Your task to perform on an android device: turn on bluetooth scan Image 0: 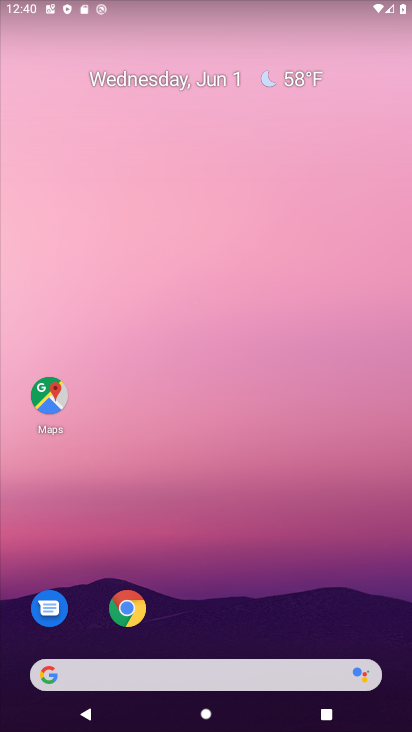
Step 0: drag from (215, 634) to (215, 41)
Your task to perform on an android device: turn on bluetooth scan Image 1: 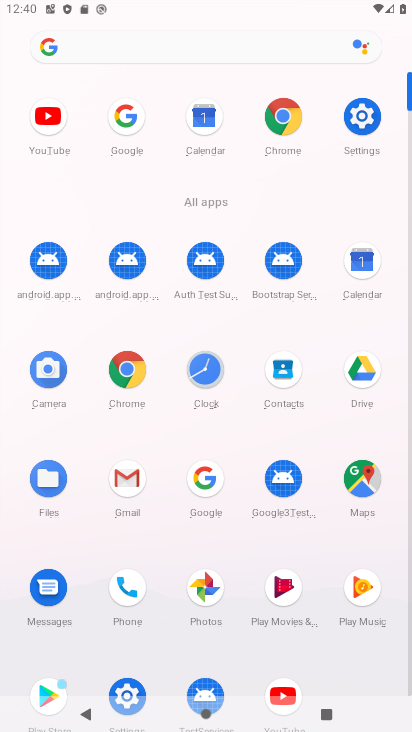
Step 1: click (367, 123)
Your task to perform on an android device: turn on bluetooth scan Image 2: 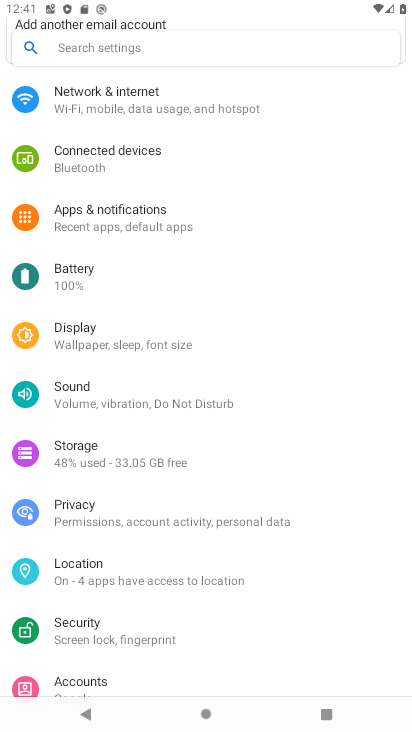
Step 2: drag from (87, 620) to (110, 376)
Your task to perform on an android device: turn on bluetooth scan Image 3: 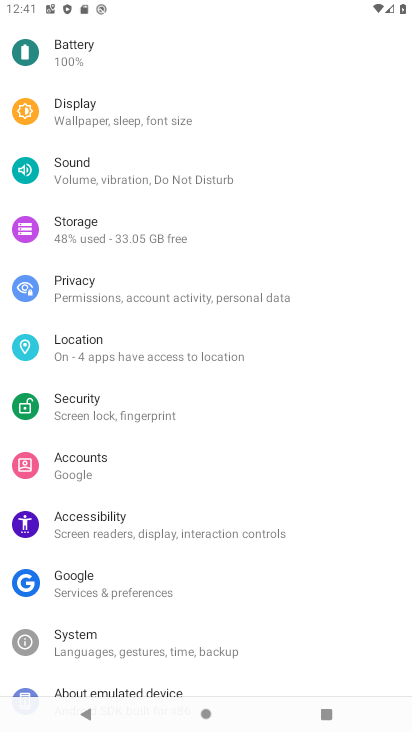
Step 3: click (107, 338)
Your task to perform on an android device: turn on bluetooth scan Image 4: 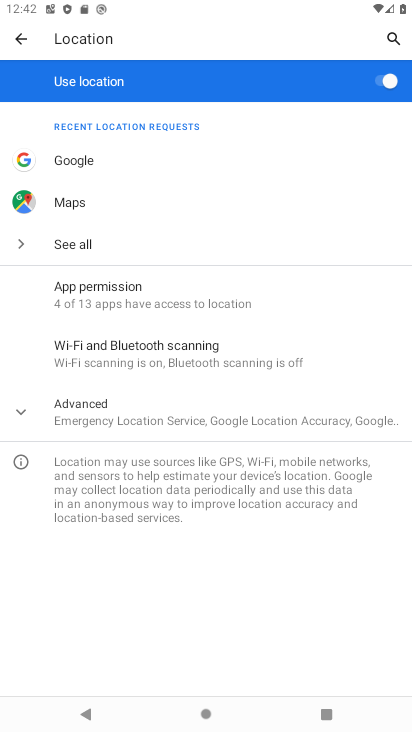
Step 4: click (160, 360)
Your task to perform on an android device: turn on bluetooth scan Image 5: 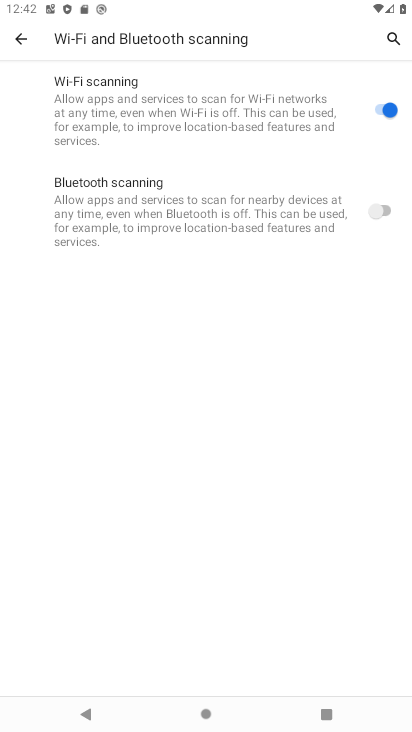
Step 5: click (370, 200)
Your task to perform on an android device: turn on bluetooth scan Image 6: 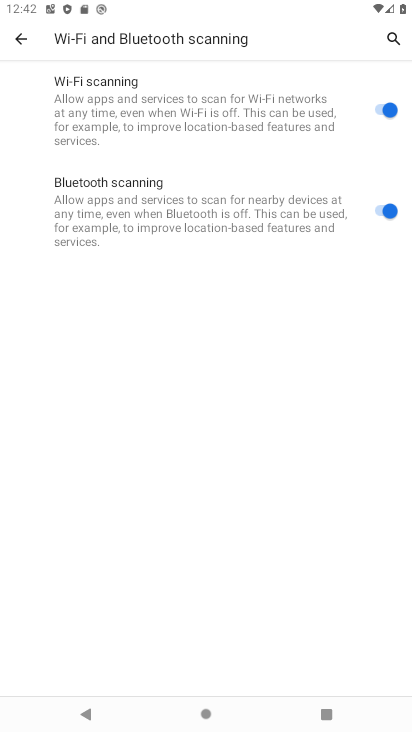
Step 6: task complete